Your task to perform on an android device: find snoozed emails in the gmail app Image 0: 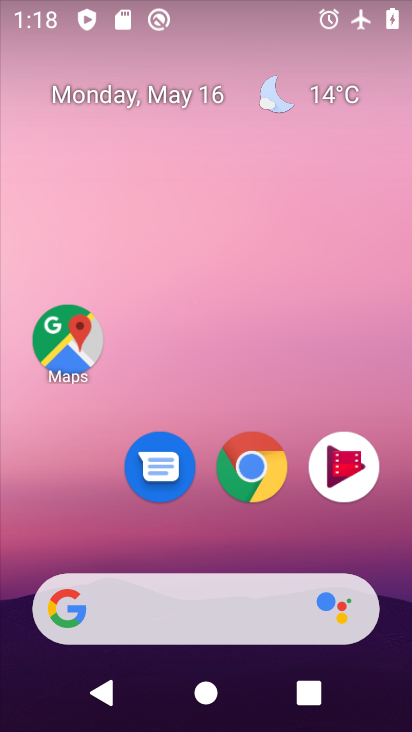
Step 0: drag from (285, 534) to (305, 113)
Your task to perform on an android device: find snoozed emails in the gmail app Image 1: 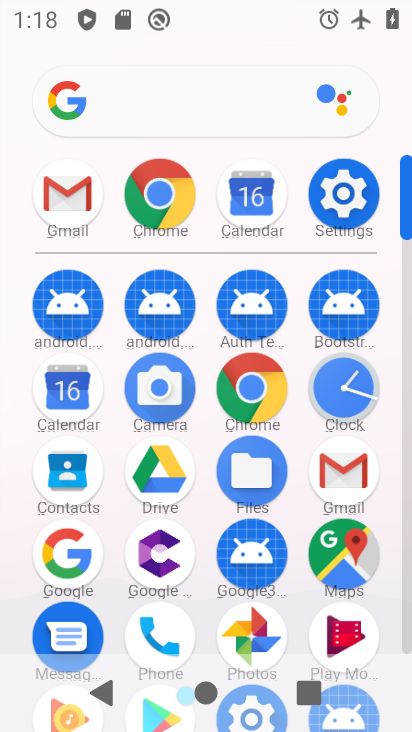
Step 1: click (364, 456)
Your task to perform on an android device: find snoozed emails in the gmail app Image 2: 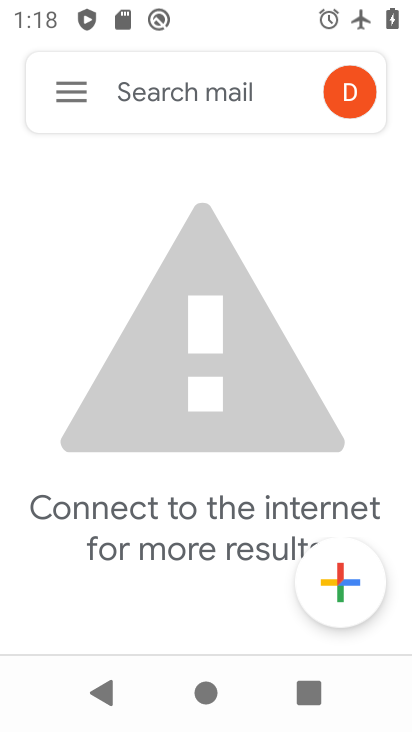
Step 2: click (53, 75)
Your task to perform on an android device: find snoozed emails in the gmail app Image 3: 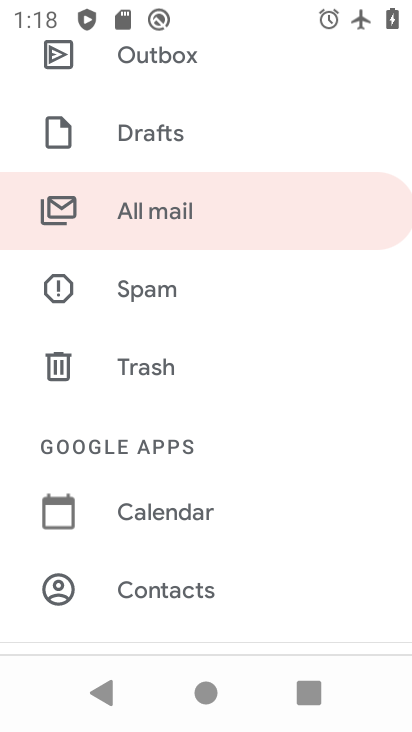
Step 3: drag from (216, 95) to (119, 552)
Your task to perform on an android device: find snoozed emails in the gmail app Image 4: 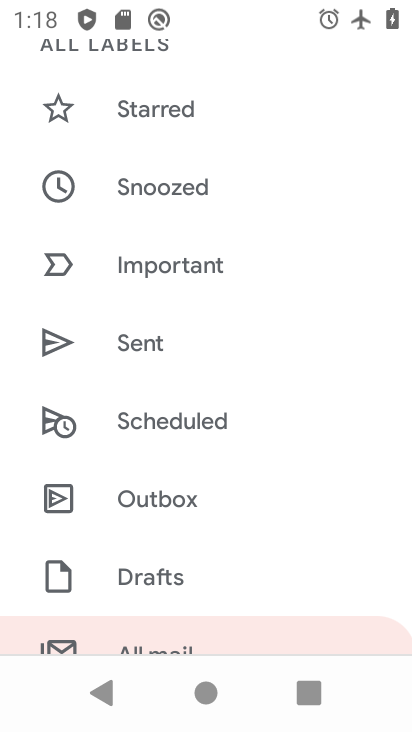
Step 4: click (173, 190)
Your task to perform on an android device: find snoozed emails in the gmail app Image 5: 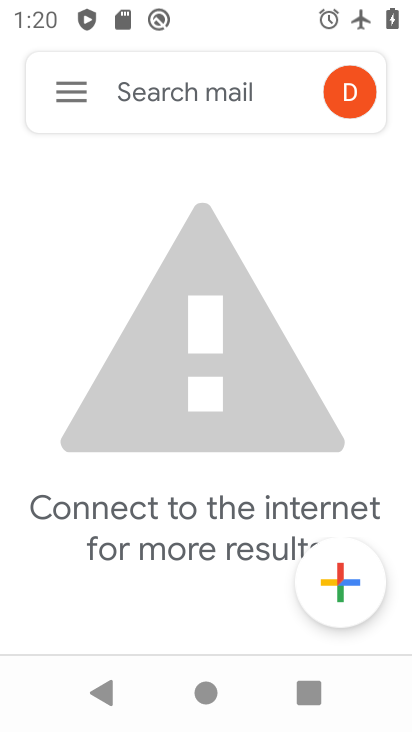
Step 5: task complete